Your task to perform on an android device: Open Youtube and go to "Your channel" Image 0: 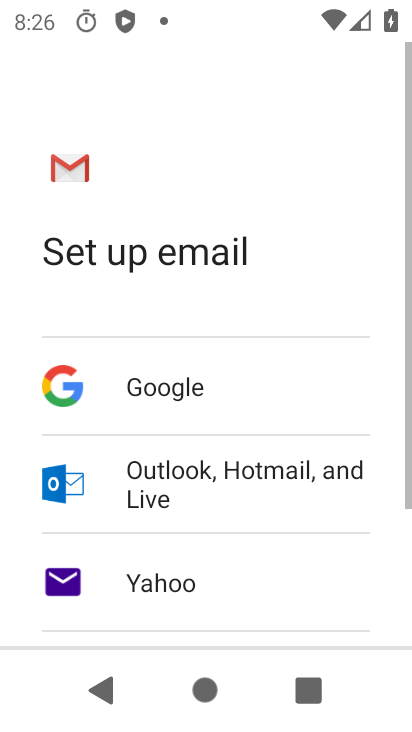
Step 0: press home button
Your task to perform on an android device: Open Youtube and go to "Your channel" Image 1: 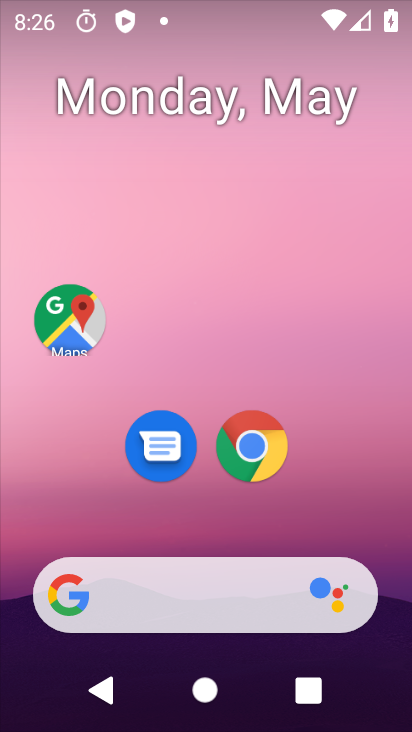
Step 1: drag from (336, 449) to (302, 9)
Your task to perform on an android device: Open Youtube and go to "Your channel" Image 2: 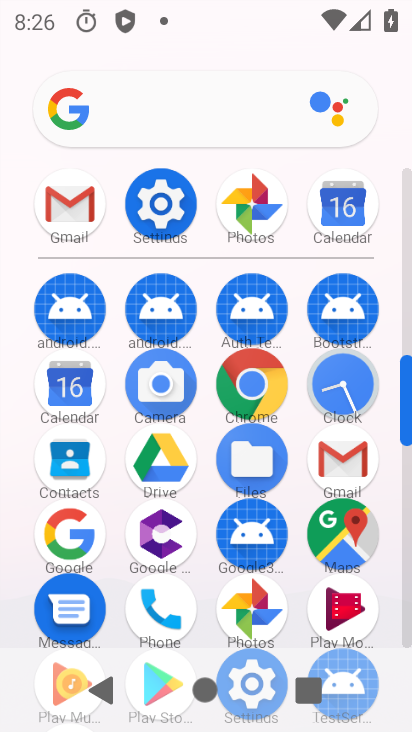
Step 2: drag from (404, 536) to (409, 430)
Your task to perform on an android device: Open Youtube and go to "Your channel" Image 3: 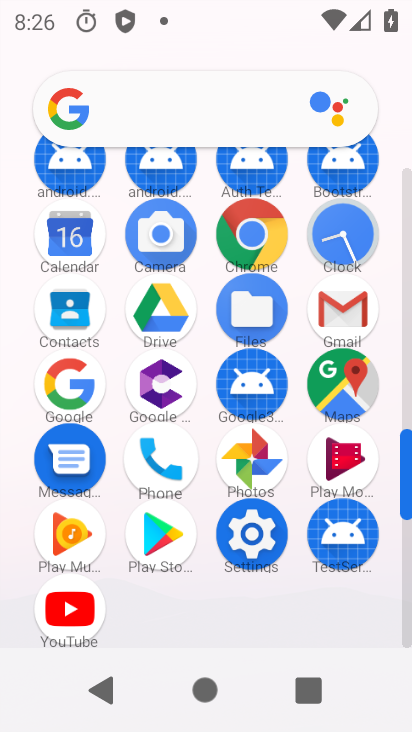
Step 3: click (89, 597)
Your task to perform on an android device: Open Youtube and go to "Your channel" Image 4: 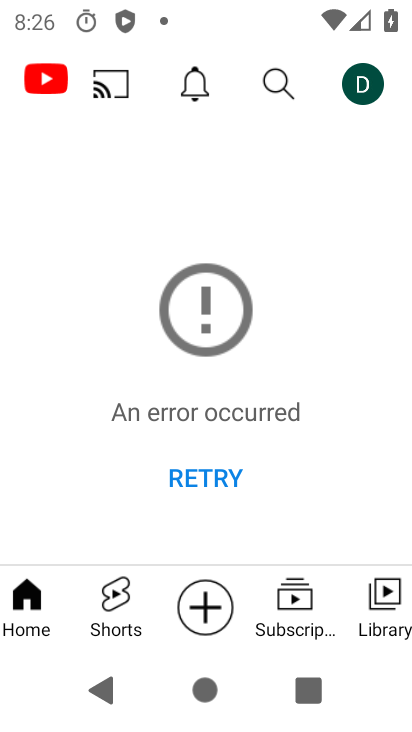
Step 4: click (370, 95)
Your task to perform on an android device: Open Youtube and go to "Your channel" Image 5: 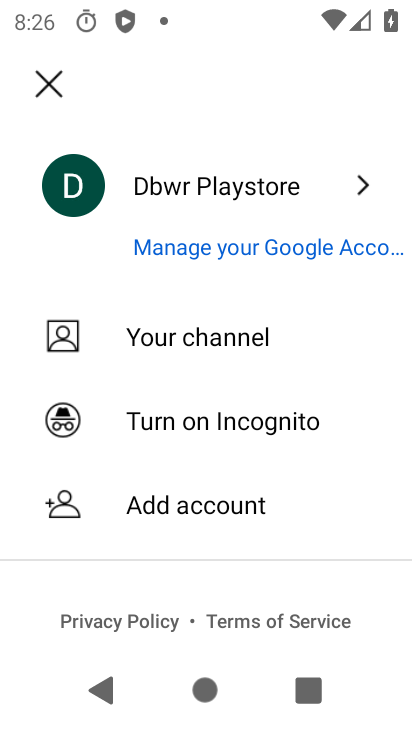
Step 5: click (135, 331)
Your task to perform on an android device: Open Youtube and go to "Your channel" Image 6: 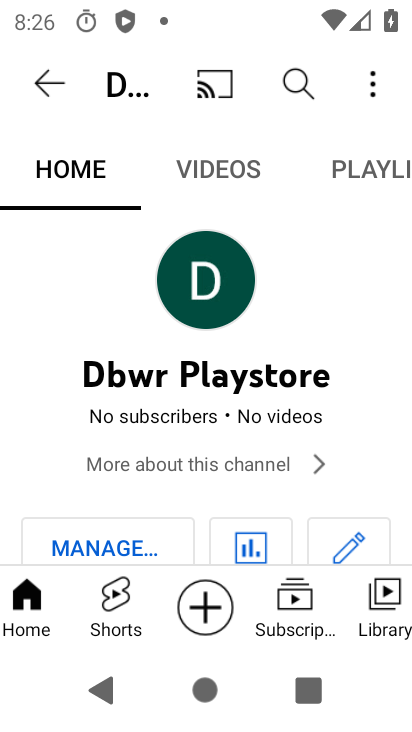
Step 6: task complete